Your task to perform on an android device: Open the Play Movies app and select the watchlist tab. Image 0: 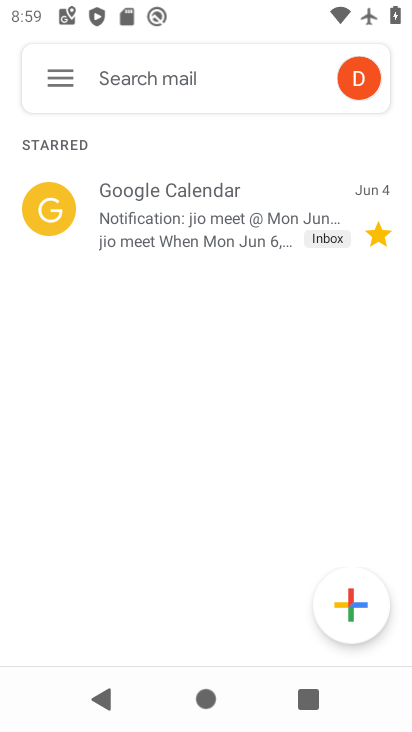
Step 0: press home button
Your task to perform on an android device: Open the Play Movies app and select the watchlist tab. Image 1: 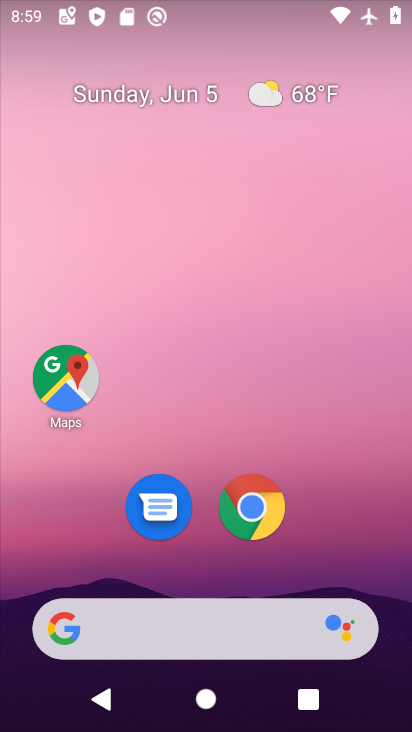
Step 1: drag from (192, 547) to (220, 33)
Your task to perform on an android device: Open the Play Movies app and select the watchlist tab. Image 2: 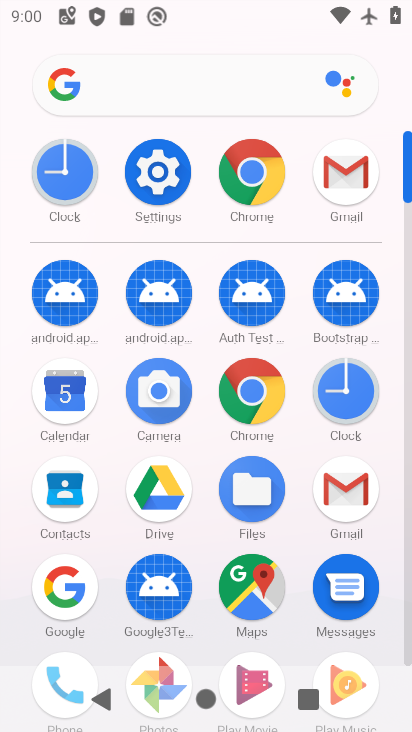
Step 2: drag from (208, 547) to (223, 312)
Your task to perform on an android device: Open the Play Movies app and select the watchlist tab. Image 3: 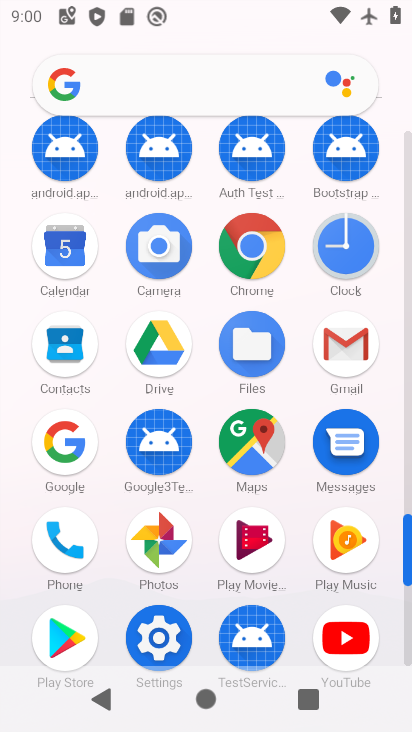
Step 3: click (260, 555)
Your task to perform on an android device: Open the Play Movies app and select the watchlist tab. Image 4: 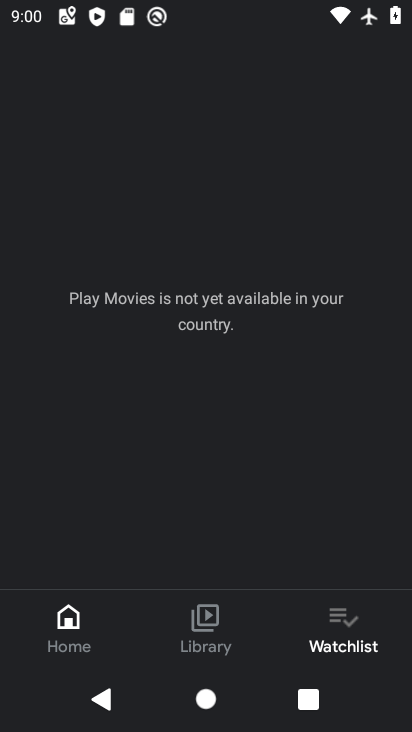
Step 4: click (357, 626)
Your task to perform on an android device: Open the Play Movies app and select the watchlist tab. Image 5: 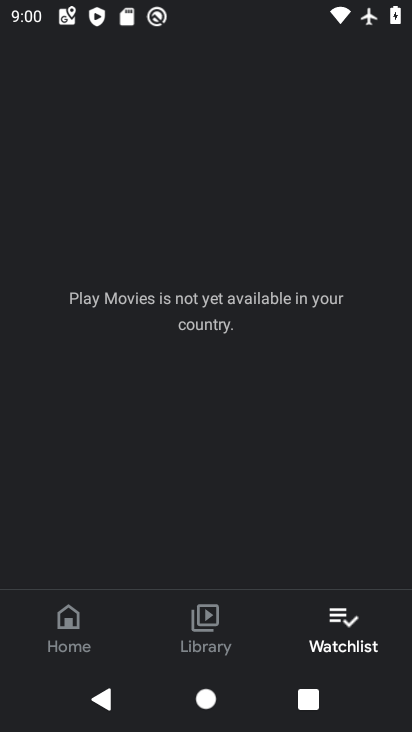
Step 5: task complete